Your task to perform on an android device: Open network settings Image 0: 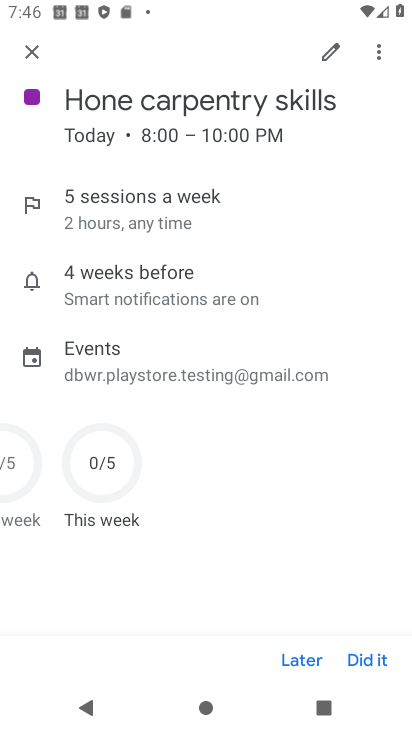
Step 0: press home button
Your task to perform on an android device: Open network settings Image 1: 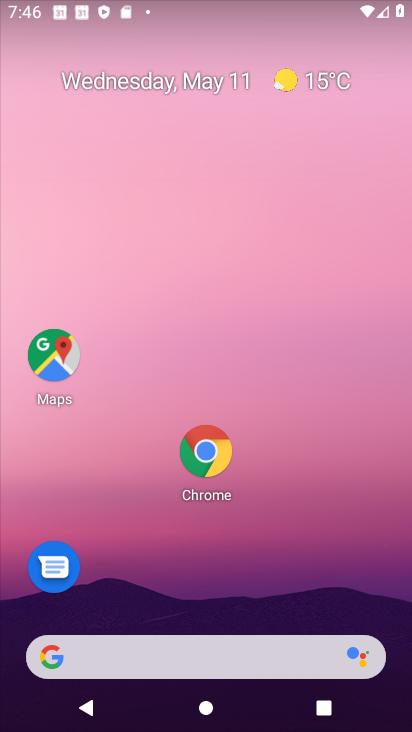
Step 1: drag from (149, 660) to (347, 50)
Your task to perform on an android device: Open network settings Image 2: 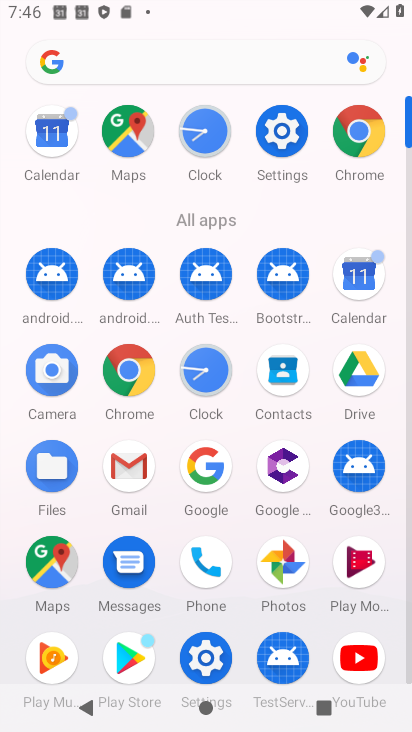
Step 2: click (280, 142)
Your task to perform on an android device: Open network settings Image 3: 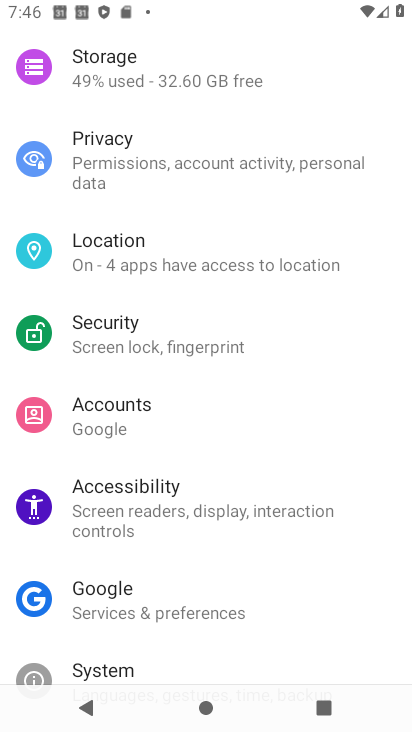
Step 3: drag from (271, 103) to (183, 531)
Your task to perform on an android device: Open network settings Image 4: 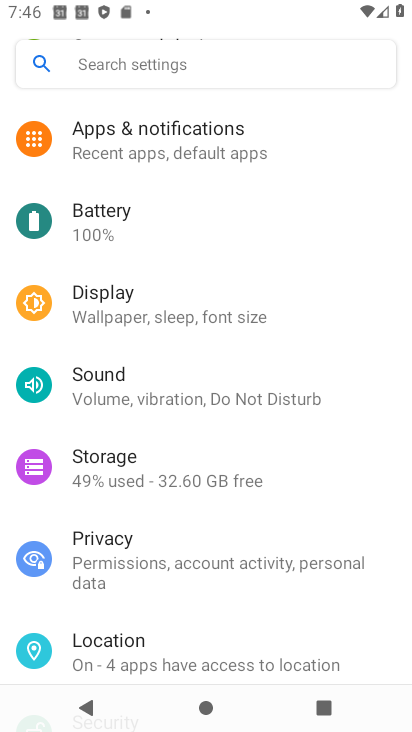
Step 4: drag from (304, 164) to (273, 564)
Your task to perform on an android device: Open network settings Image 5: 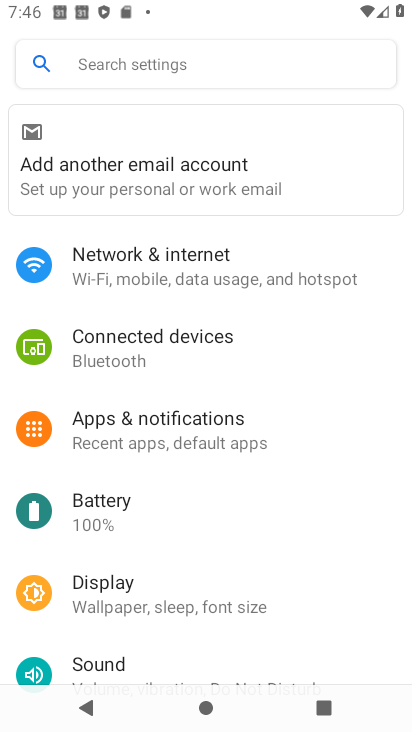
Step 5: click (196, 262)
Your task to perform on an android device: Open network settings Image 6: 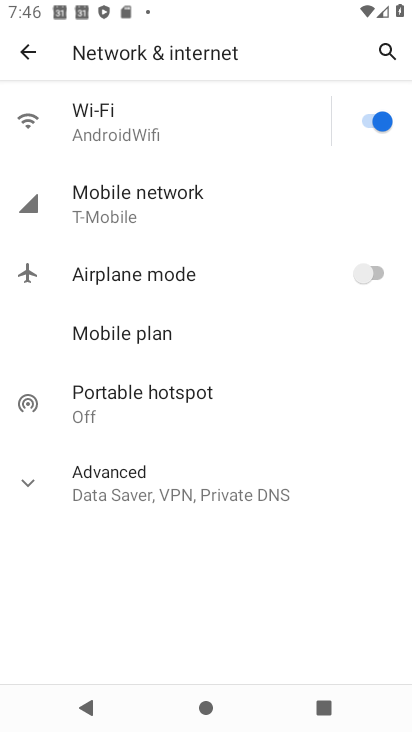
Step 6: task complete